Your task to perform on an android device: Go to Android settings Image 0: 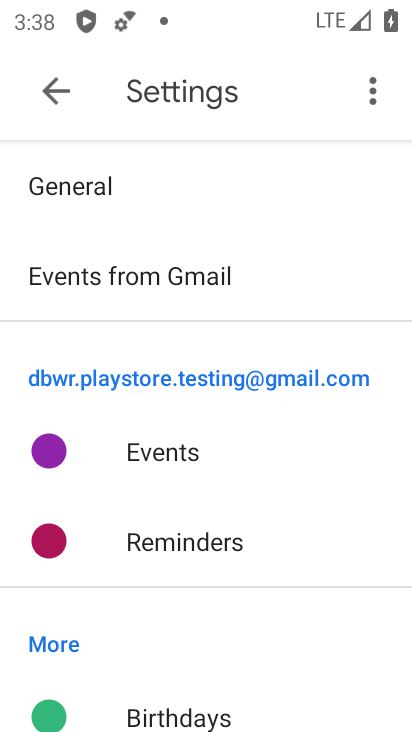
Step 0: press home button
Your task to perform on an android device: Go to Android settings Image 1: 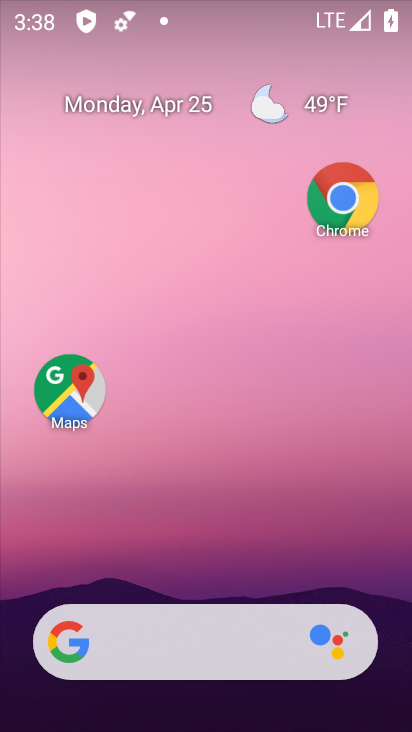
Step 1: drag from (216, 637) to (307, 206)
Your task to perform on an android device: Go to Android settings Image 2: 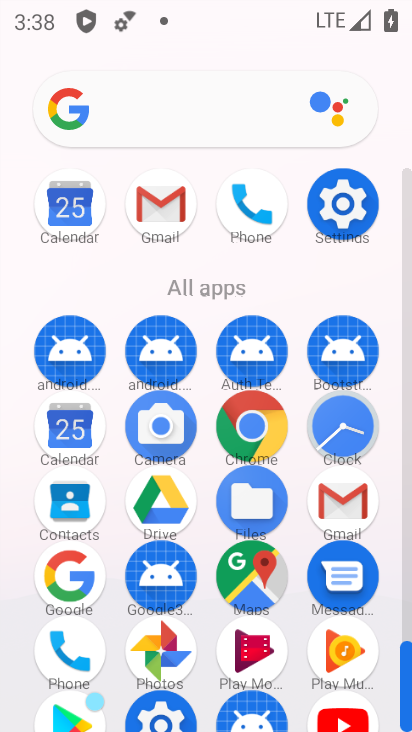
Step 2: click (340, 188)
Your task to perform on an android device: Go to Android settings Image 3: 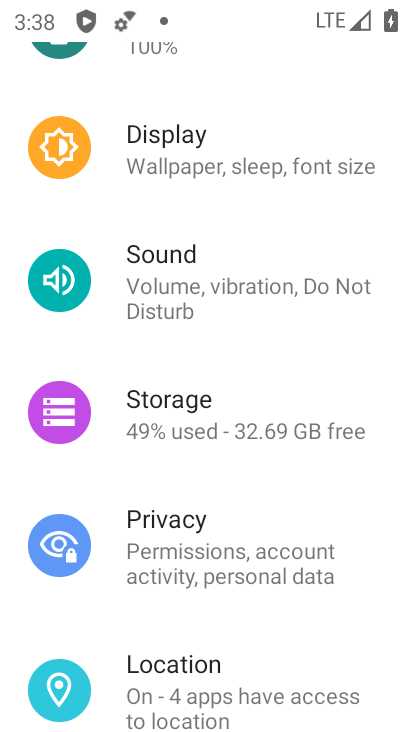
Step 3: task complete